Your task to perform on an android device: Go to Yahoo.com Image 0: 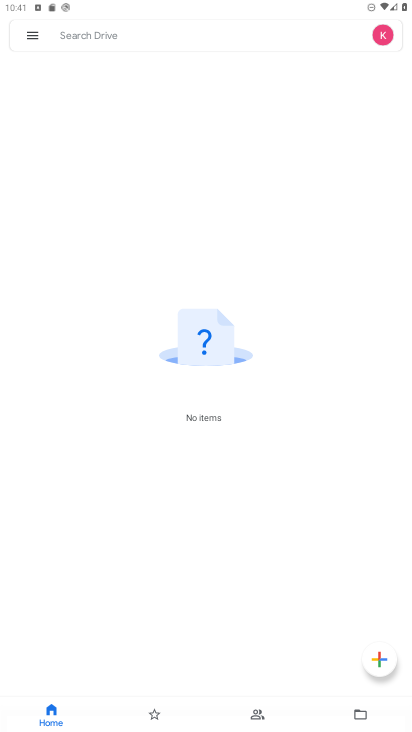
Step 0: press home button
Your task to perform on an android device: Go to Yahoo.com Image 1: 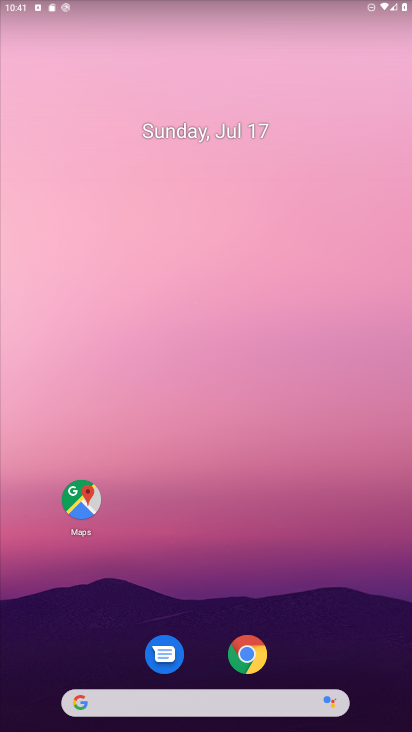
Step 1: click (237, 652)
Your task to perform on an android device: Go to Yahoo.com Image 2: 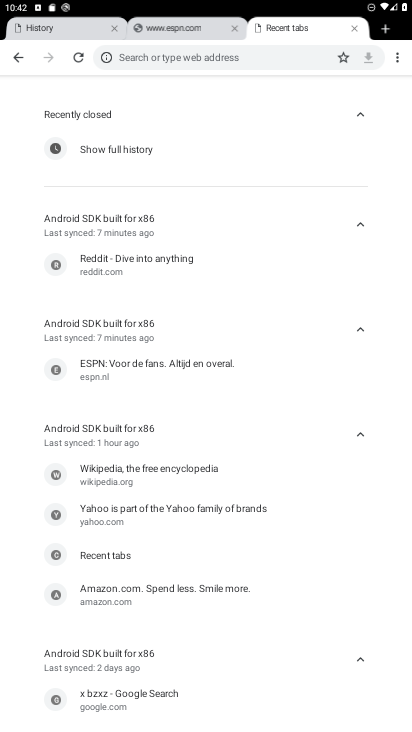
Step 2: click (383, 31)
Your task to perform on an android device: Go to Yahoo.com Image 3: 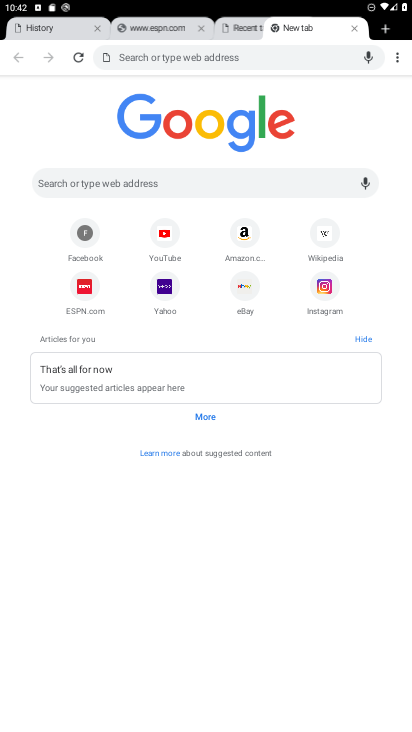
Step 3: click (162, 293)
Your task to perform on an android device: Go to Yahoo.com Image 4: 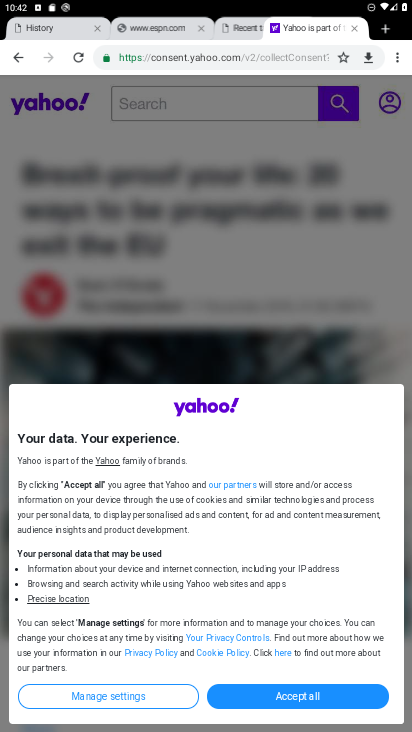
Step 4: task complete